Your task to perform on an android device: open app "Truecaller" (install if not already installed), go to login, and select forgot password Image 0: 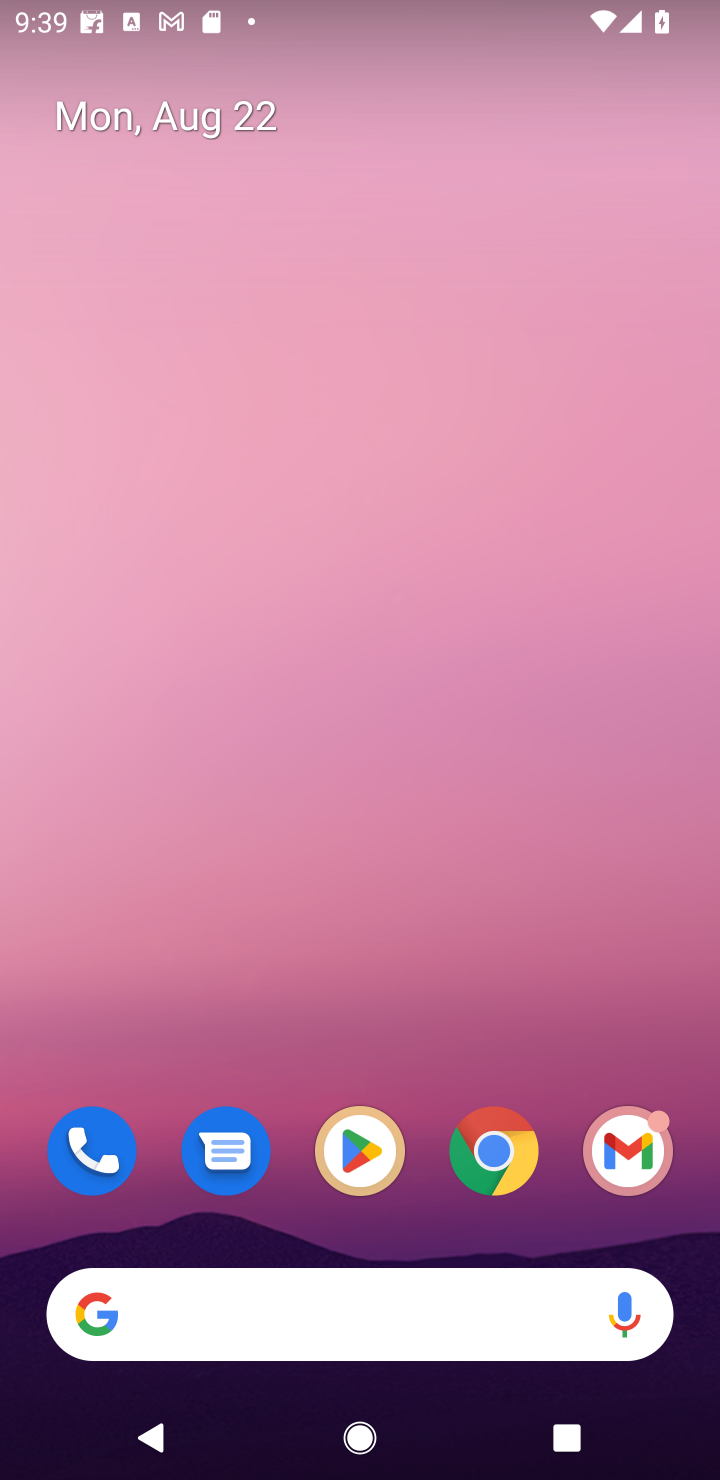
Step 0: press home button
Your task to perform on an android device: open app "Truecaller" (install if not already installed), go to login, and select forgot password Image 1: 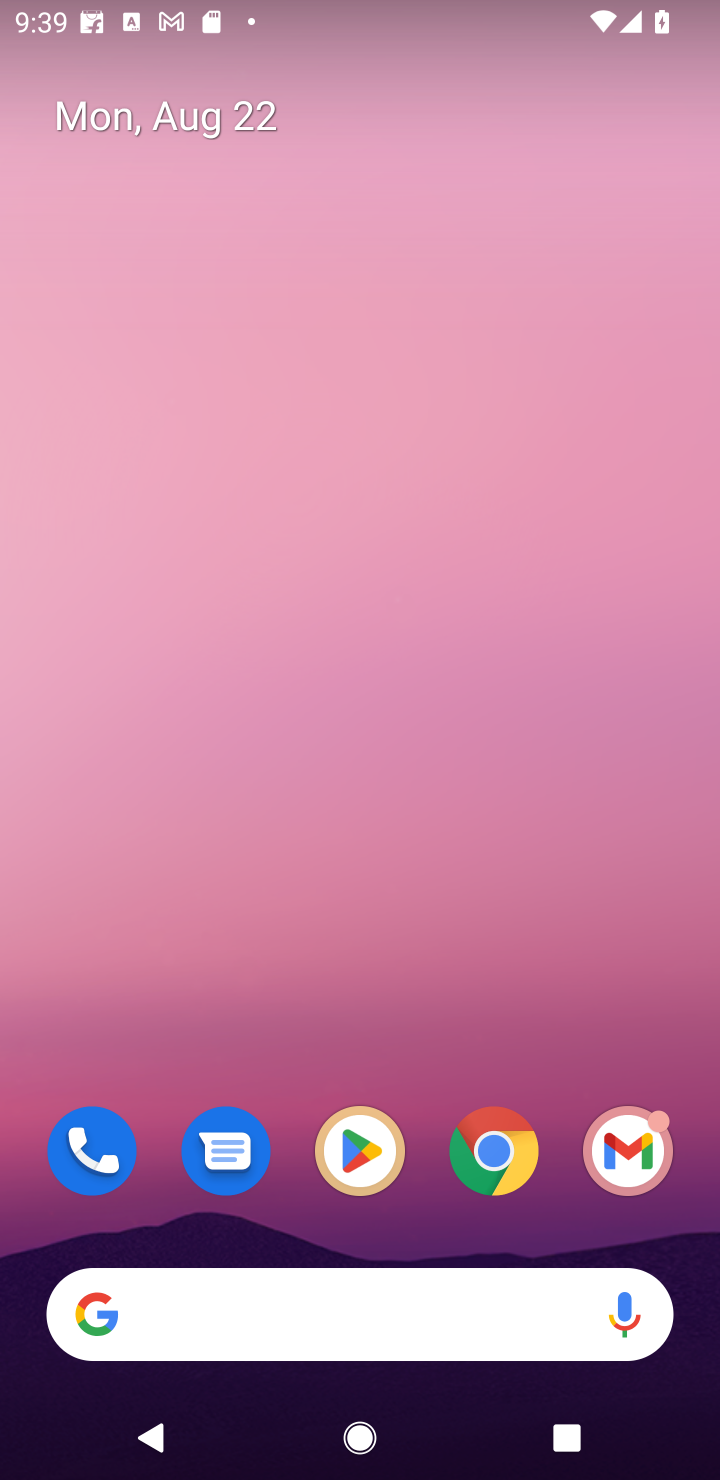
Step 1: click (379, 1156)
Your task to perform on an android device: open app "Truecaller" (install if not already installed), go to login, and select forgot password Image 2: 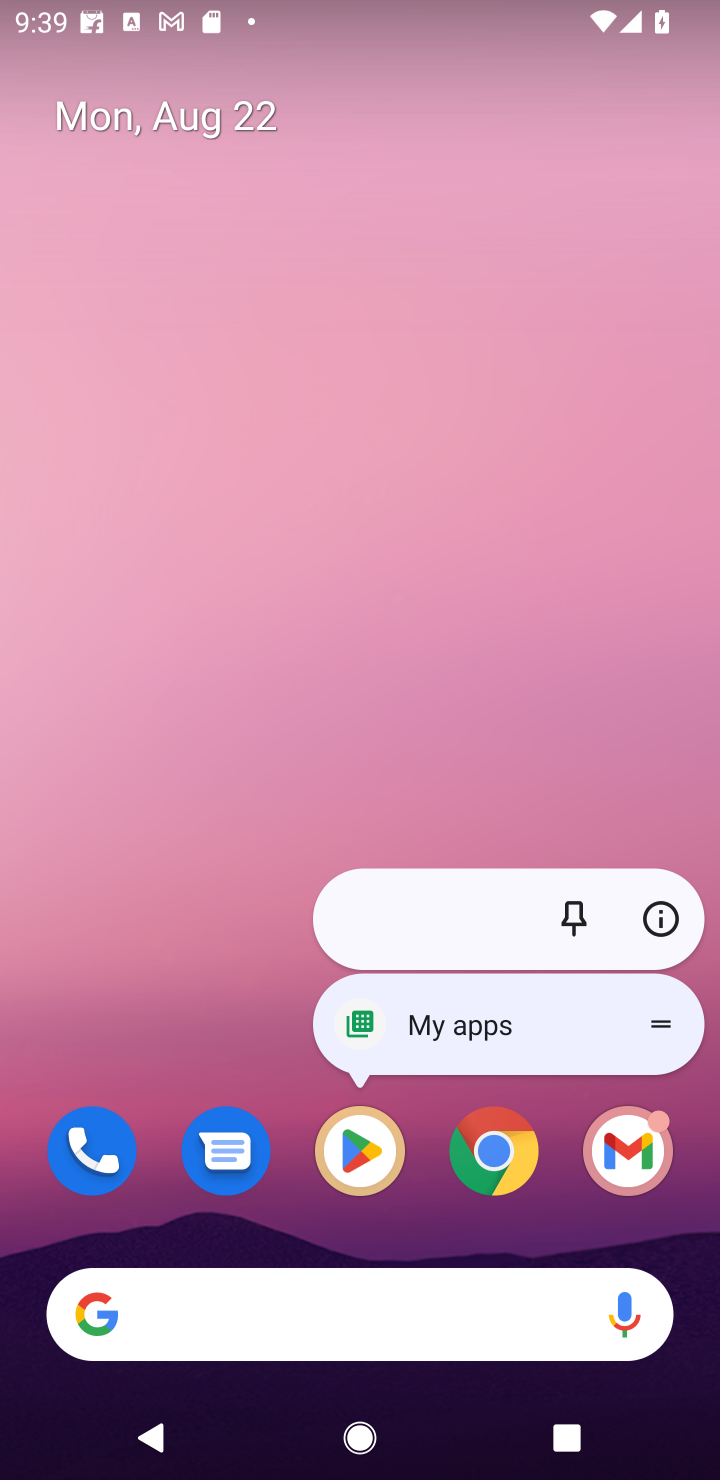
Step 2: click (361, 1152)
Your task to perform on an android device: open app "Truecaller" (install if not already installed), go to login, and select forgot password Image 3: 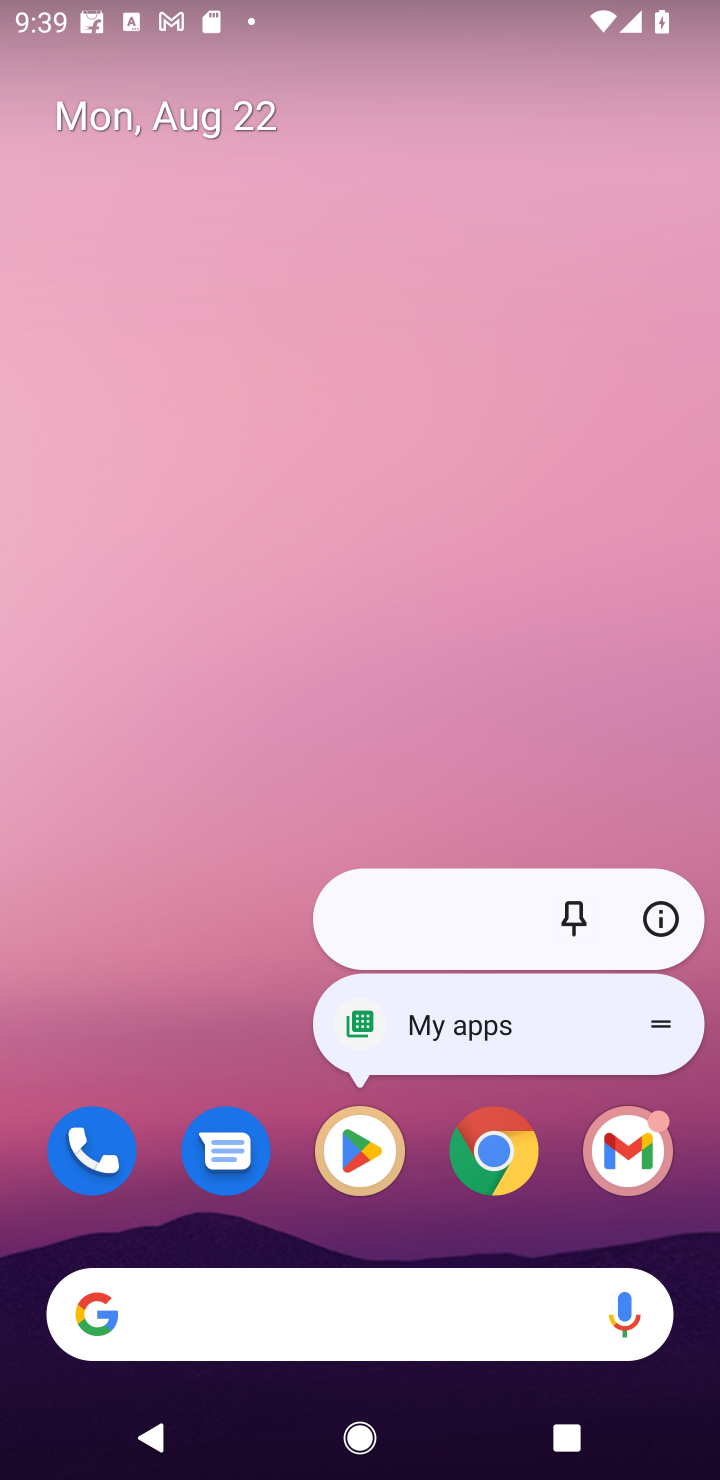
Step 3: click (369, 1155)
Your task to perform on an android device: open app "Truecaller" (install if not already installed), go to login, and select forgot password Image 4: 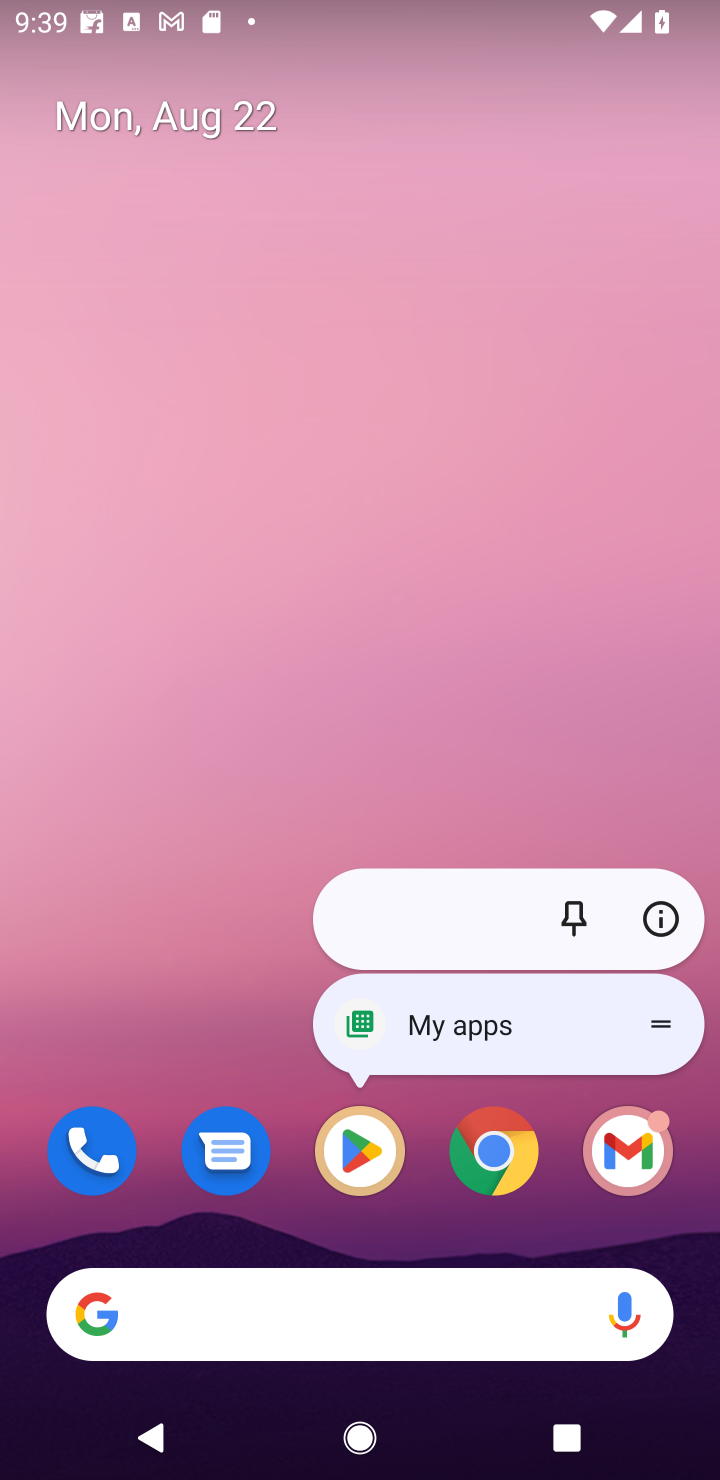
Step 4: click (371, 1153)
Your task to perform on an android device: open app "Truecaller" (install if not already installed), go to login, and select forgot password Image 5: 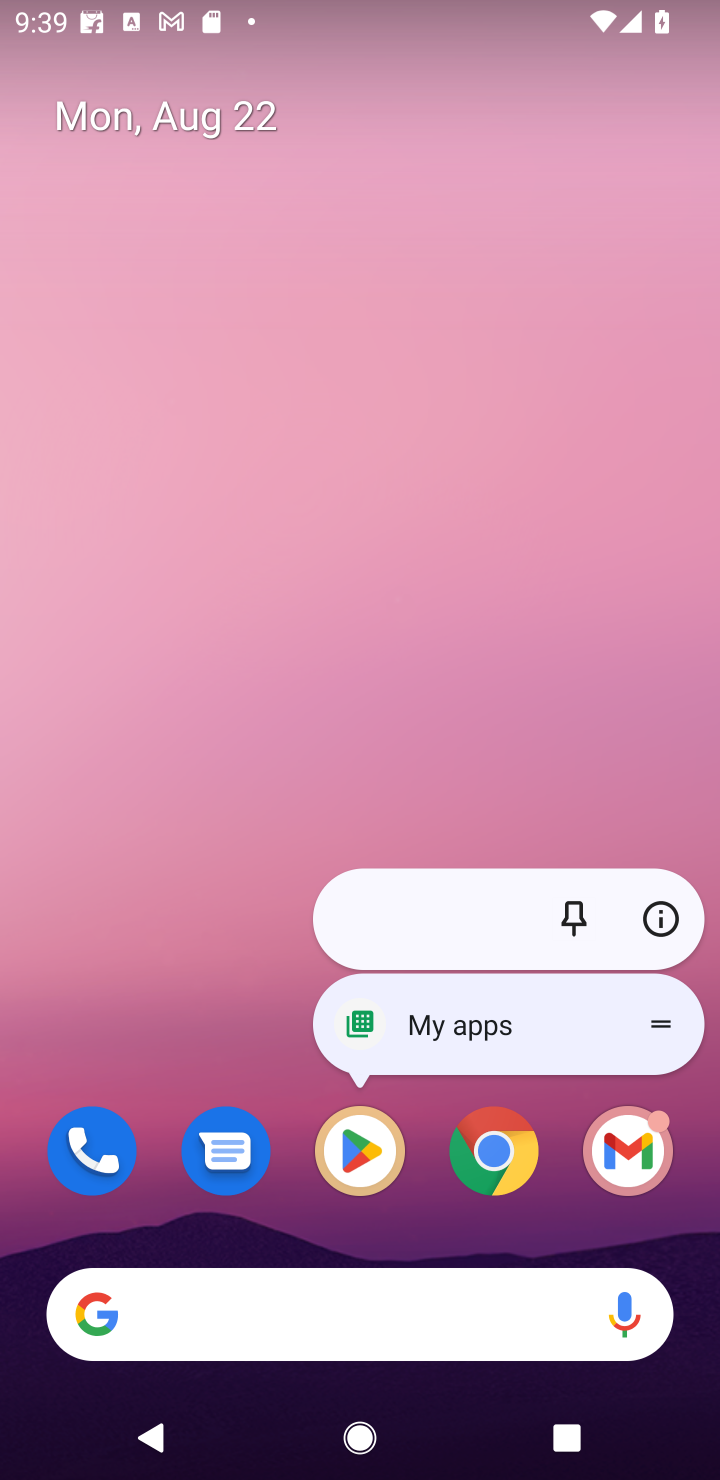
Step 5: click (368, 1154)
Your task to perform on an android device: open app "Truecaller" (install if not already installed), go to login, and select forgot password Image 6: 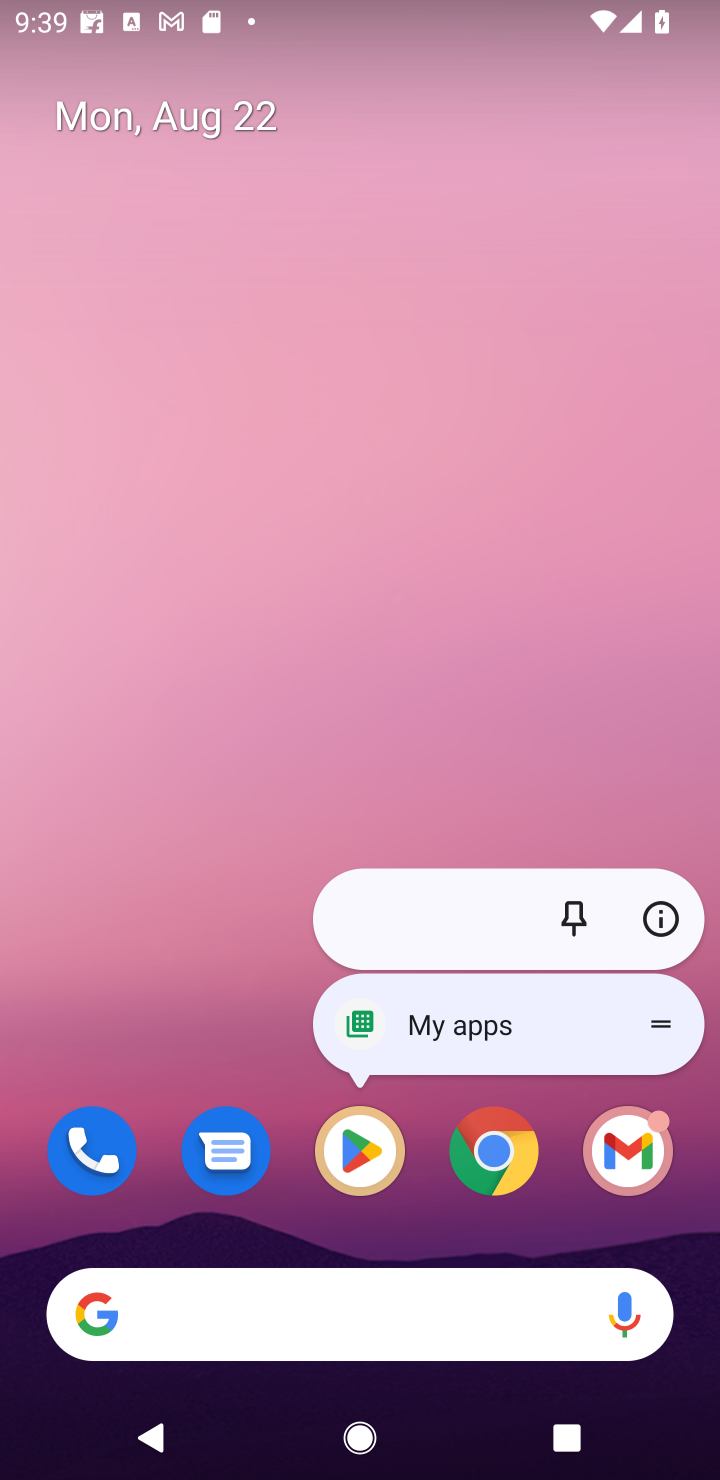
Step 6: click (368, 1157)
Your task to perform on an android device: open app "Truecaller" (install if not already installed), go to login, and select forgot password Image 7: 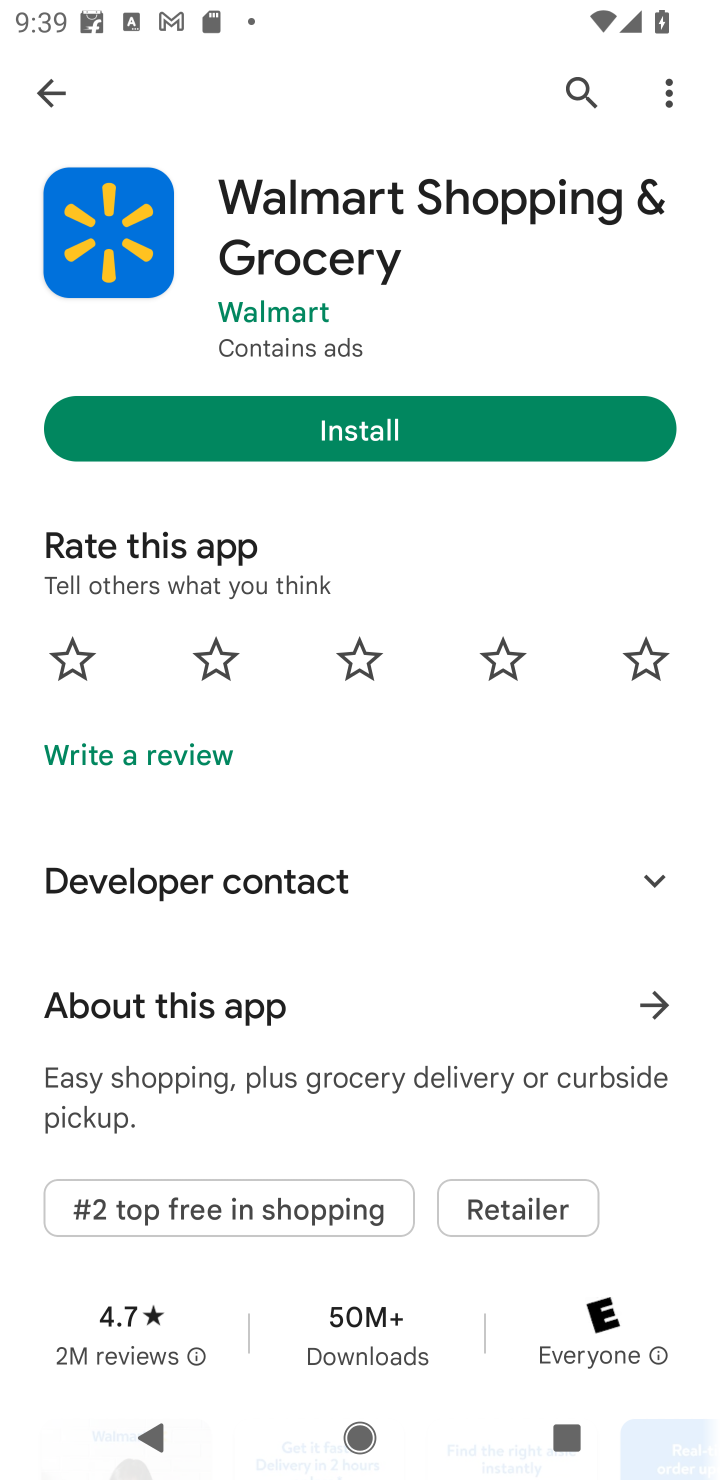
Step 7: click (571, 84)
Your task to perform on an android device: open app "Truecaller" (install if not already installed), go to login, and select forgot password Image 8: 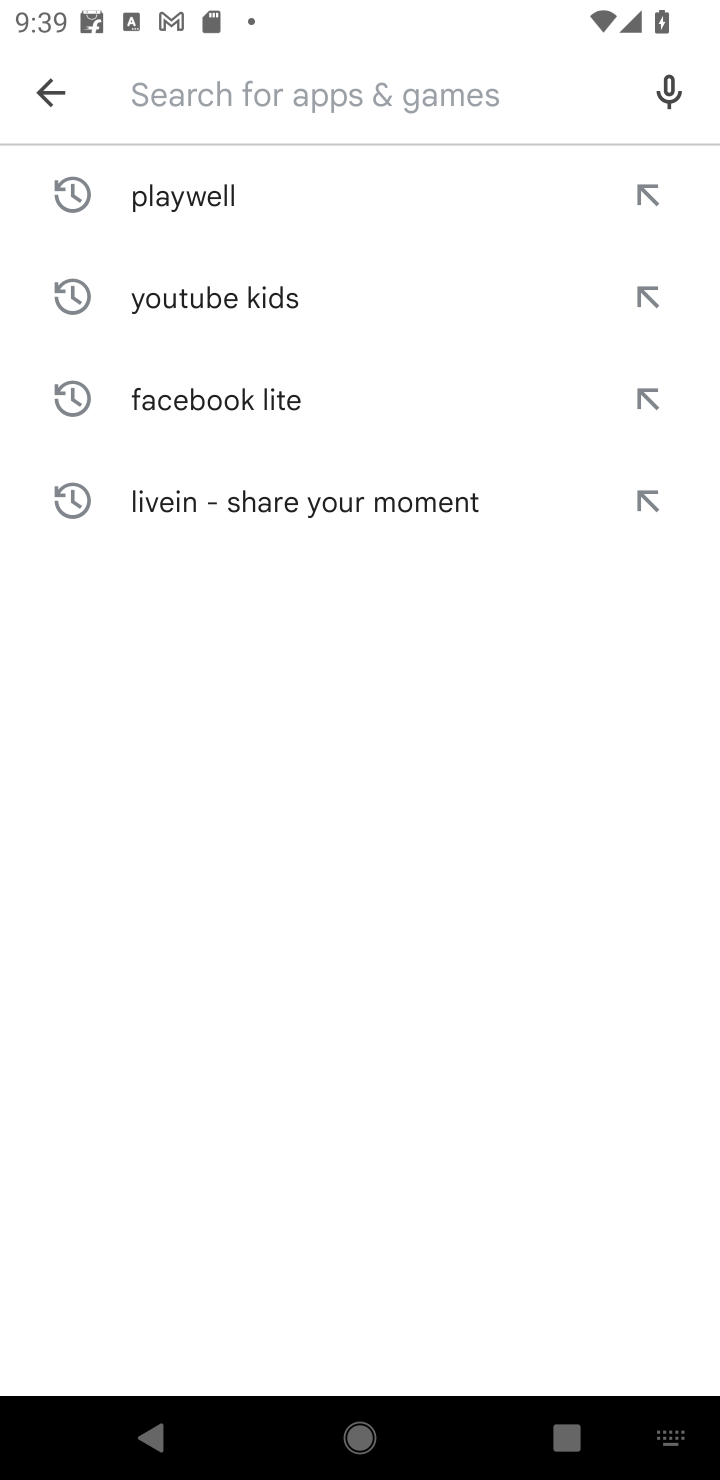
Step 8: type "Truecaller"
Your task to perform on an android device: open app "Truecaller" (install if not already installed), go to login, and select forgot password Image 9: 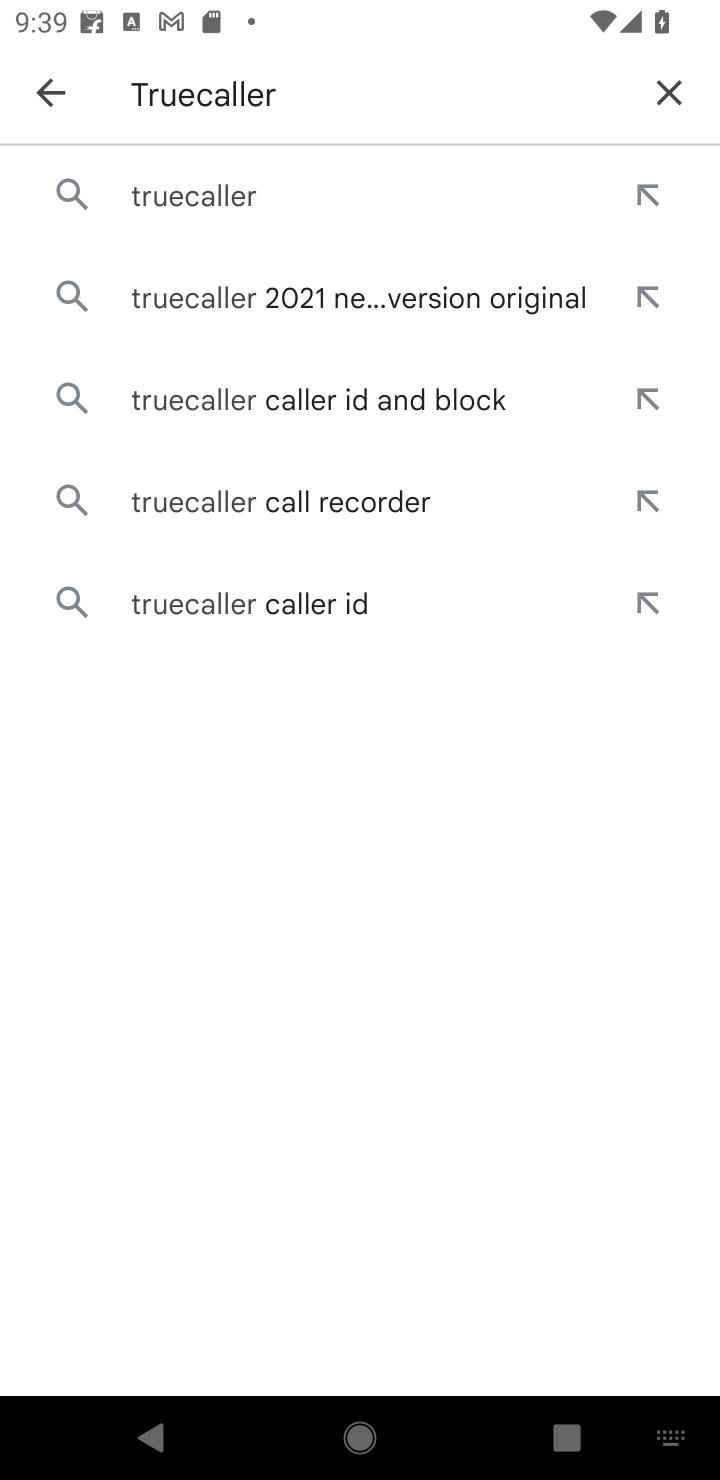
Step 9: click (231, 201)
Your task to perform on an android device: open app "Truecaller" (install if not already installed), go to login, and select forgot password Image 10: 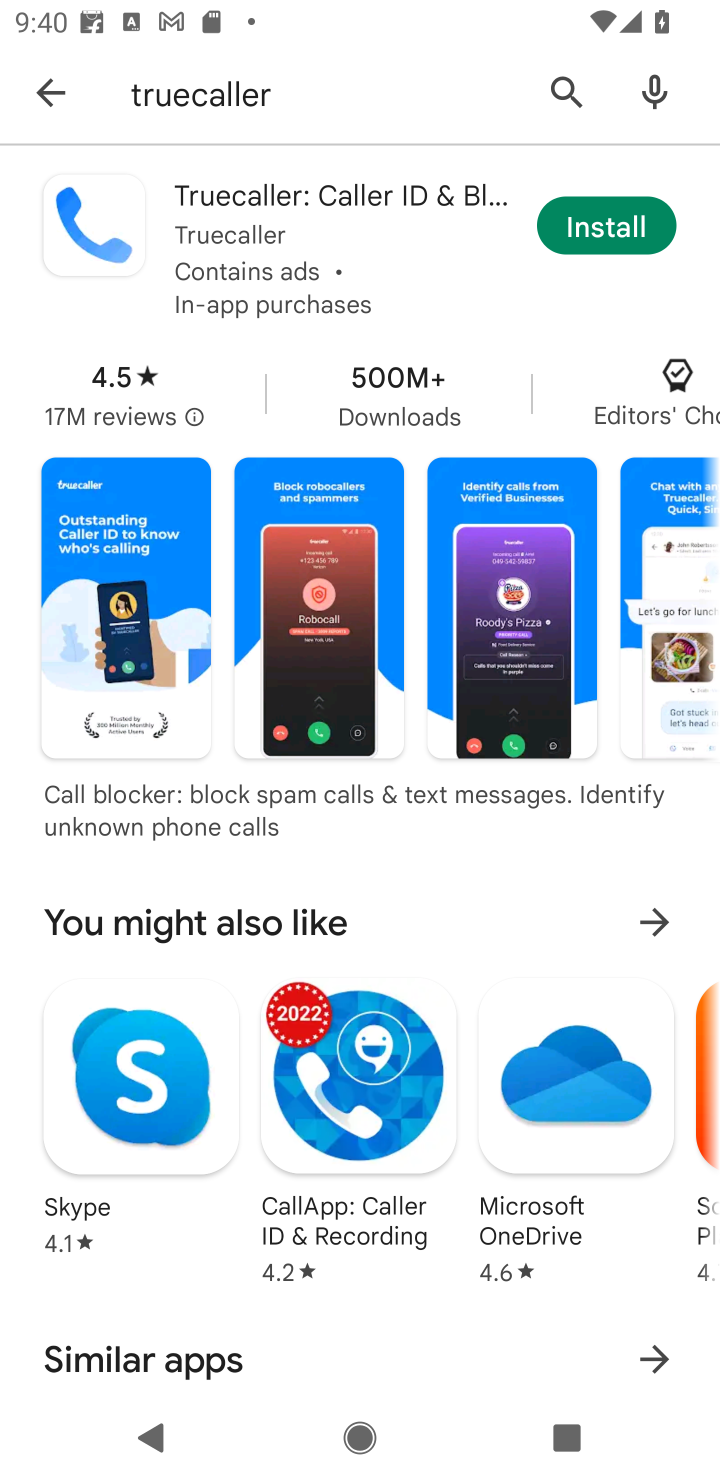
Step 10: click (585, 225)
Your task to perform on an android device: open app "Truecaller" (install if not already installed), go to login, and select forgot password Image 11: 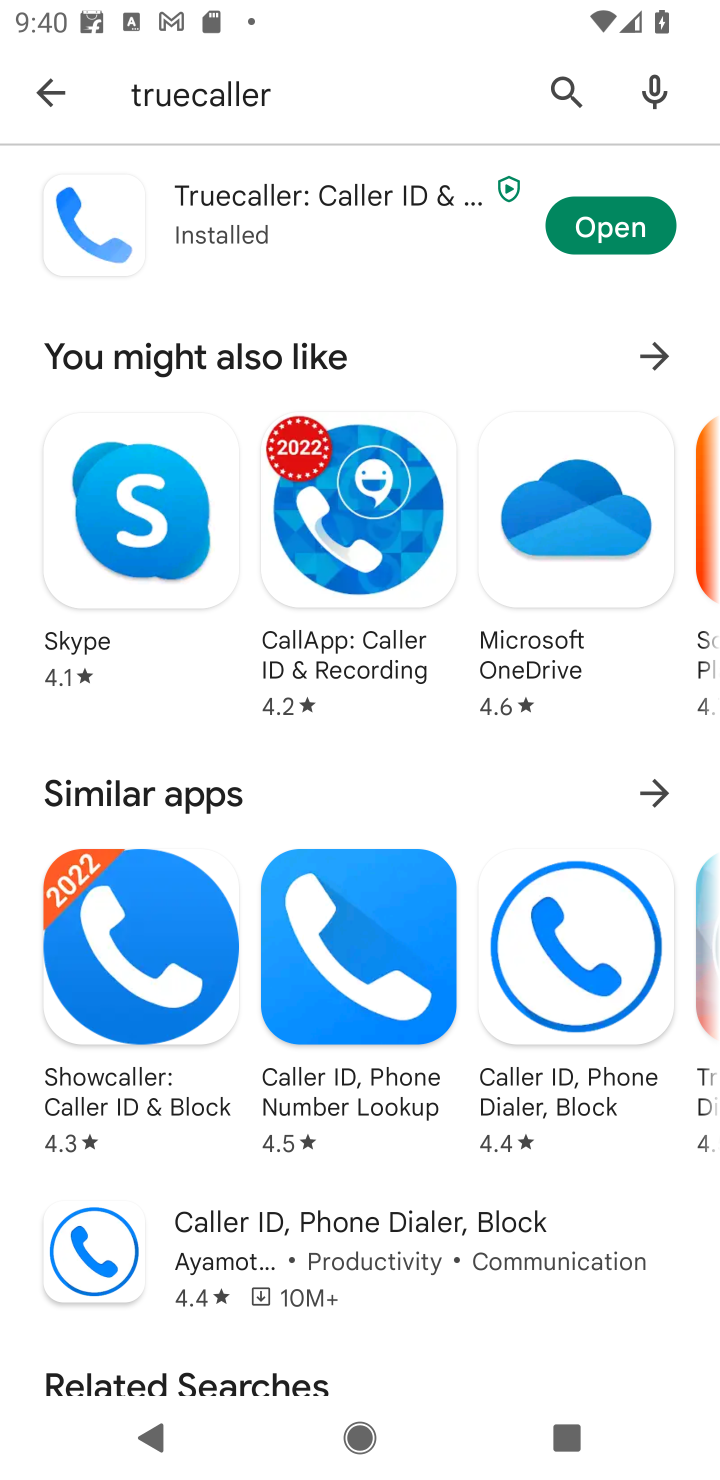
Step 11: click (591, 227)
Your task to perform on an android device: open app "Truecaller" (install if not already installed), go to login, and select forgot password Image 12: 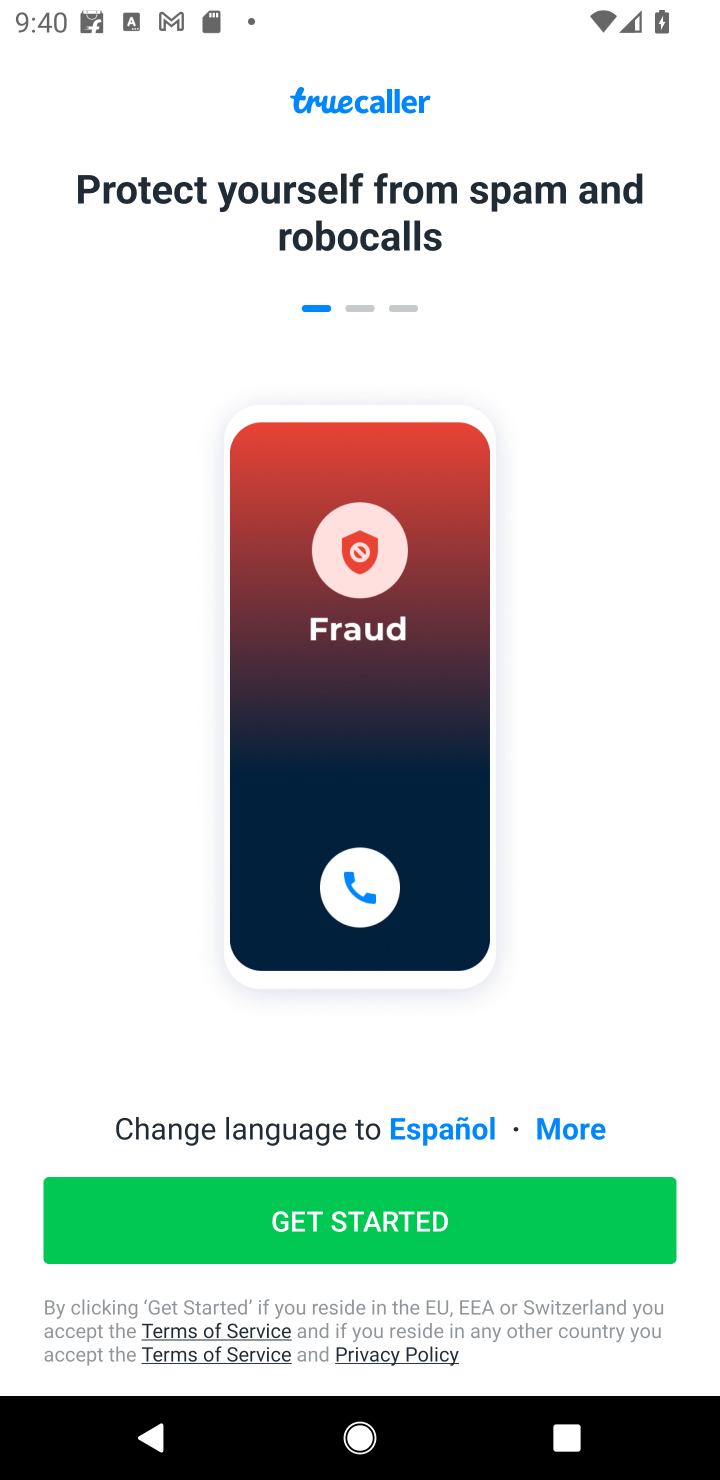
Step 12: task complete